Your task to perform on an android device: Go to location settings Image 0: 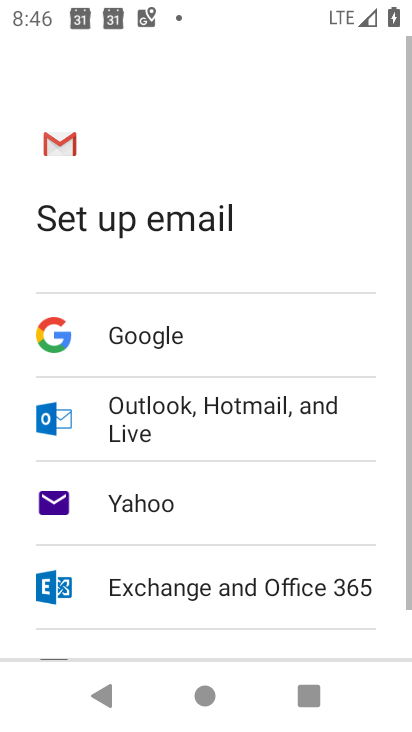
Step 0: press home button
Your task to perform on an android device: Go to location settings Image 1: 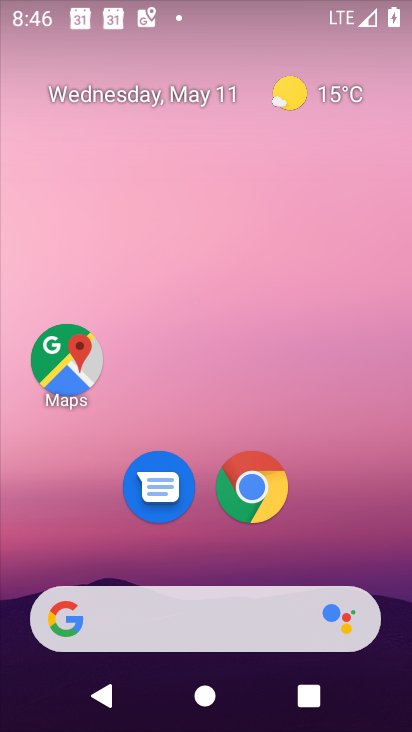
Step 1: drag from (266, 622) to (217, 118)
Your task to perform on an android device: Go to location settings Image 2: 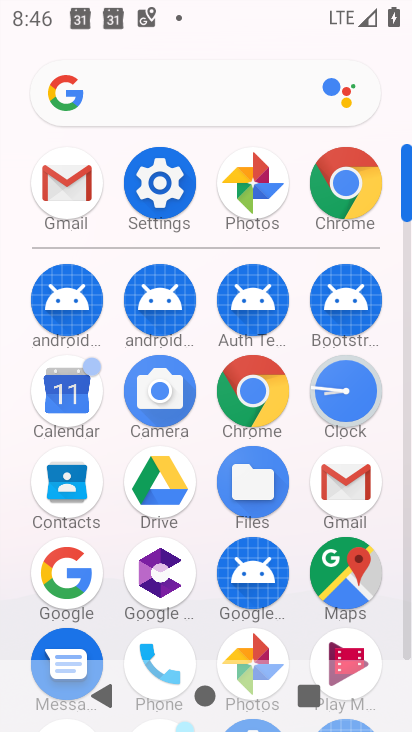
Step 2: click (175, 177)
Your task to perform on an android device: Go to location settings Image 3: 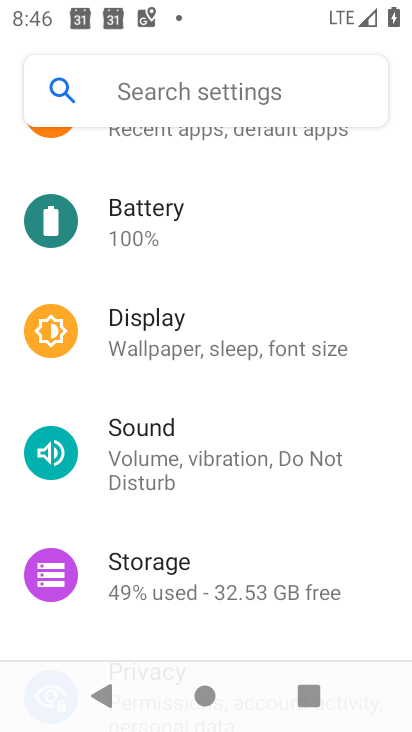
Step 3: click (173, 96)
Your task to perform on an android device: Go to location settings Image 4: 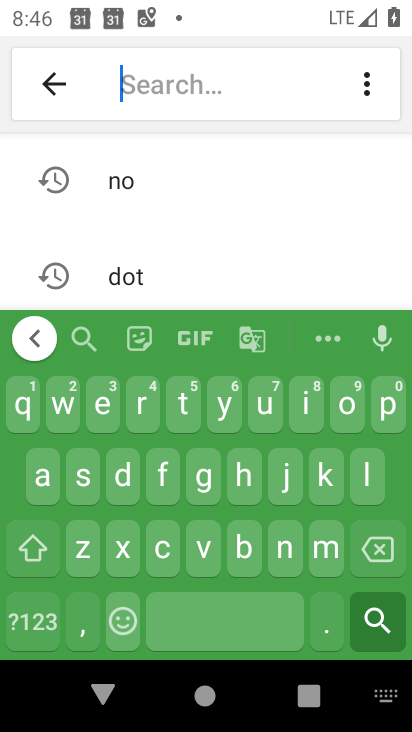
Step 4: click (368, 480)
Your task to perform on an android device: Go to location settings Image 5: 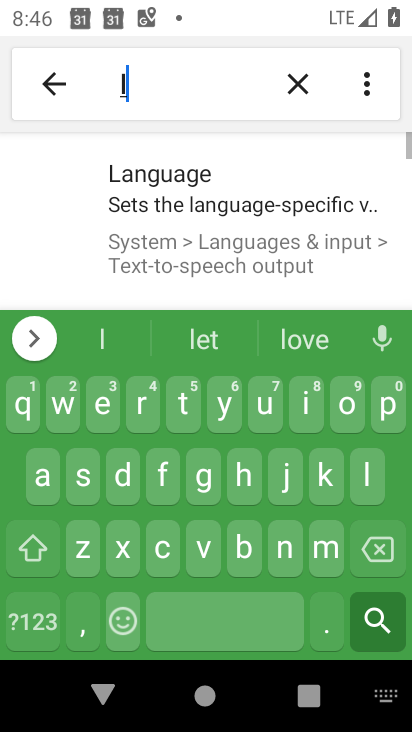
Step 5: click (347, 412)
Your task to perform on an android device: Go to location settings Image 6: 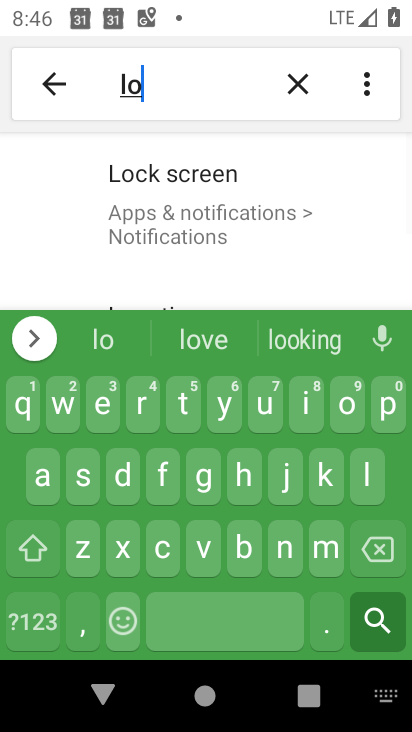
Step 6: click (157, 561)
Your task to perform on an android device: Go to location settings Image 7: 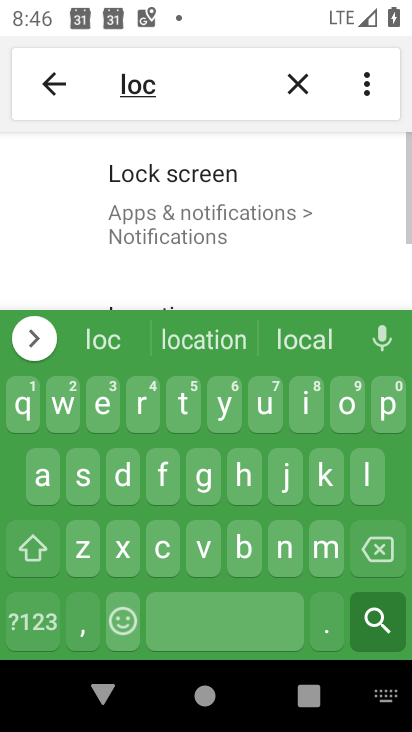
Step 7: drag from (165, 284) to (181, 199)
Your task to perform on an android device: Go to location settings Image 8: 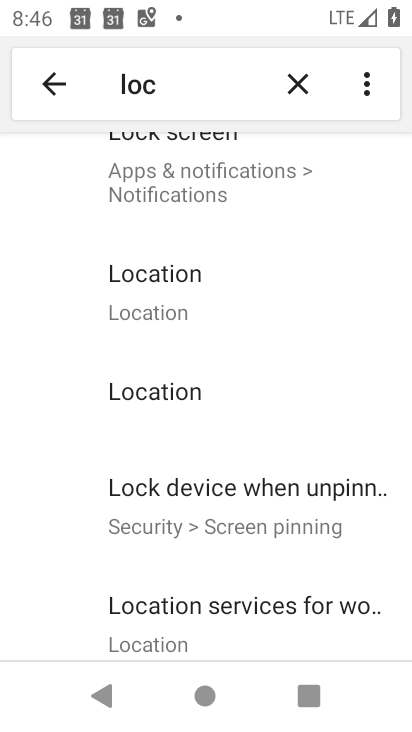
Step 8: click (161, 275)
Your task to perform on an android device: Go to location settings Image 9: 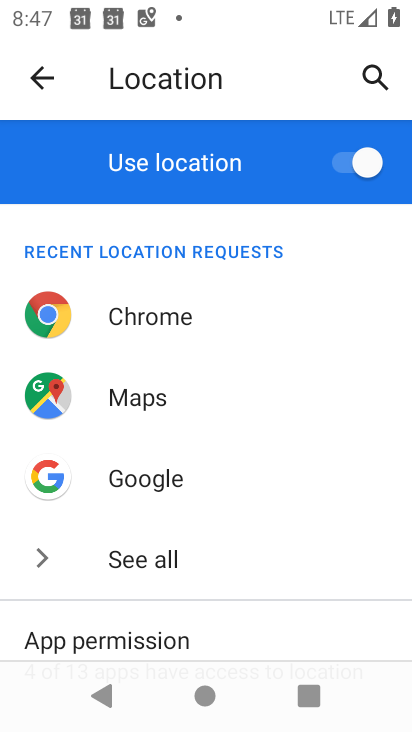
Step 9: task complete